Your task to perform on an android device: toggle notification dots Image 0: 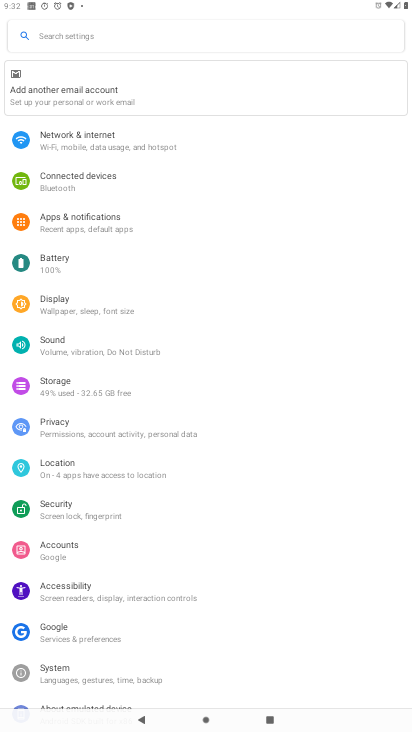
Step 0: click (103, 220)
Your task to perform on an android device: toggle notification dots Image 1: 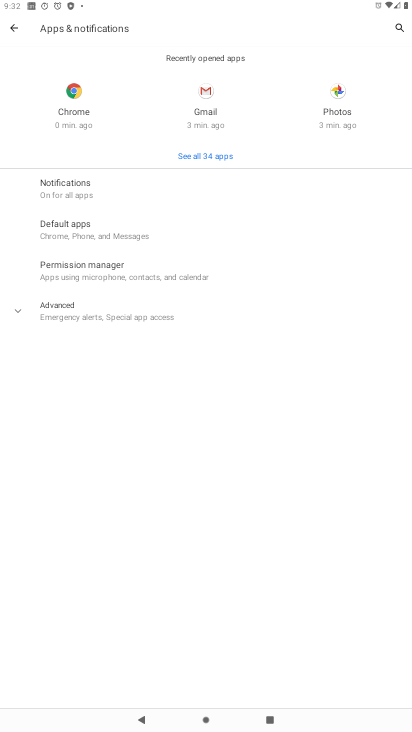
Step 1: click (63, 190)
Your task to perform on an android device: toggle notification dots Image 2: 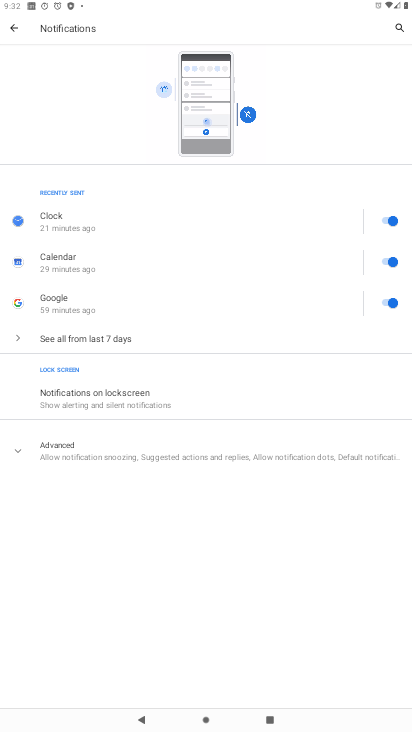
Step 2: click (93, 456)
Your task to perform on an android device: toggle notification dots Image 3: 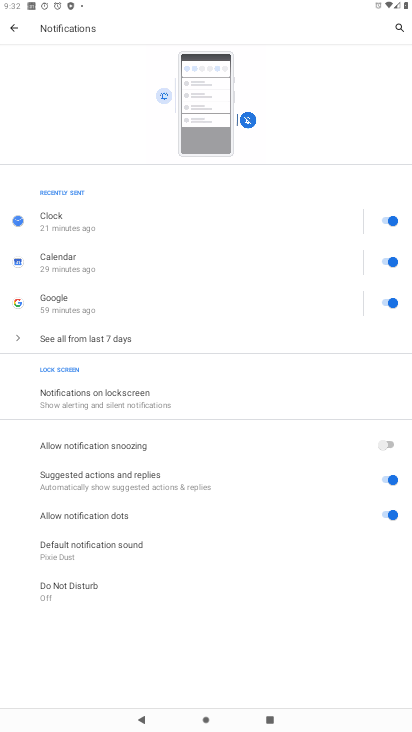
Step 3: click (390, 510)
Your task to perform on an android device: toggle notification dots Image 4: 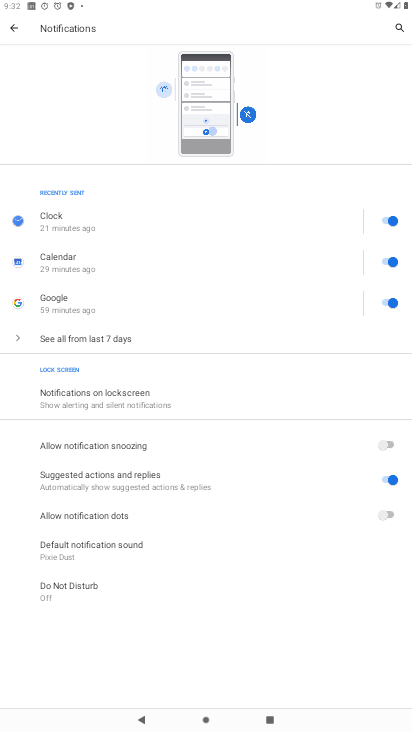
Step 4: task complete